Your task to perform on an android device: open app "DuckDuckGo Privacy Browser" Image 0: 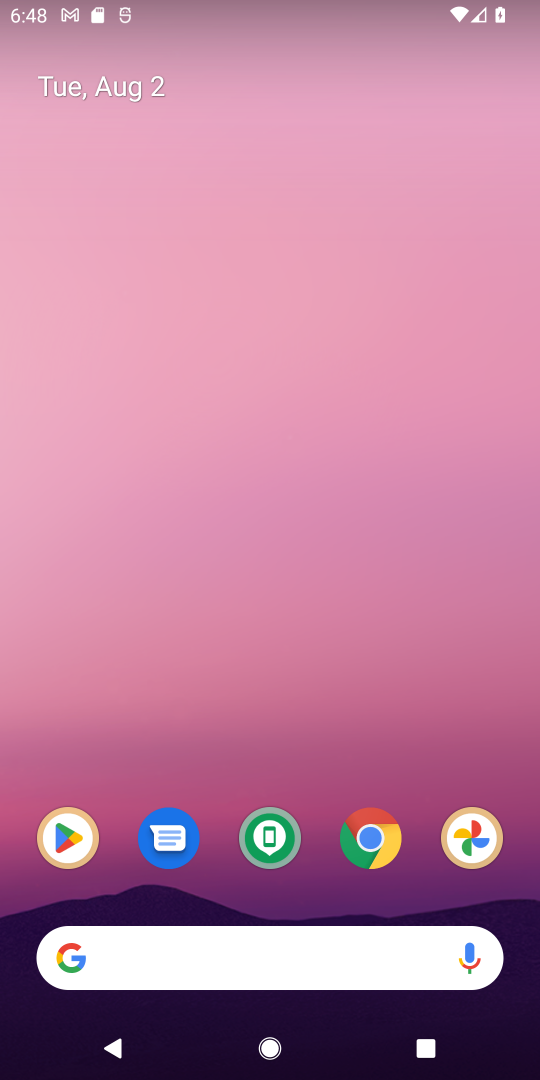
Step 0: click (64, 828)
Your task to perform on an android device: open app "DuckDuckGo Privacy Browser" Image 1: 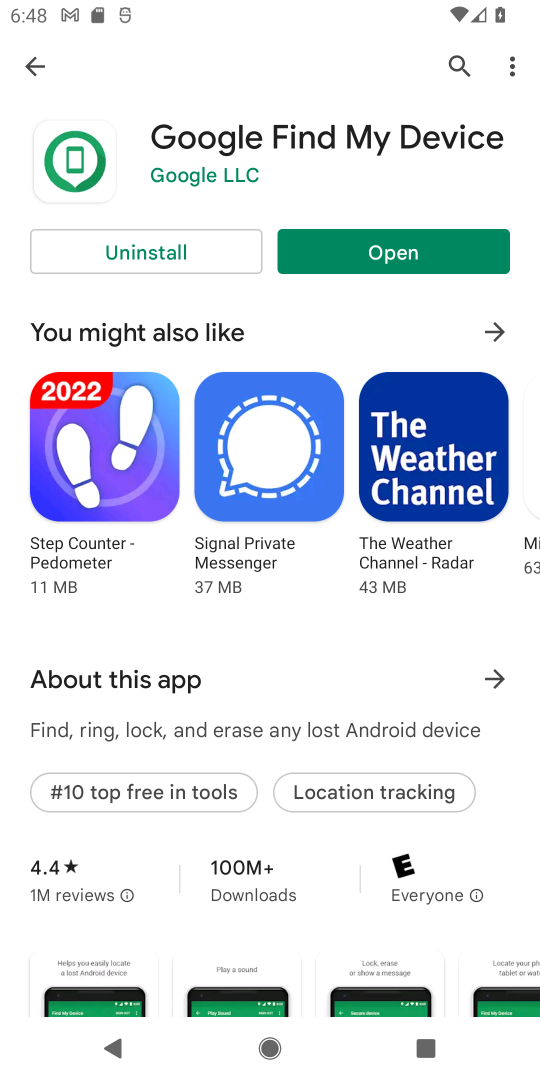
Step 1: click (463, 60)
Your task to perform on an android device: open app "DuckDuckGo Privacy Browser" Image 2: 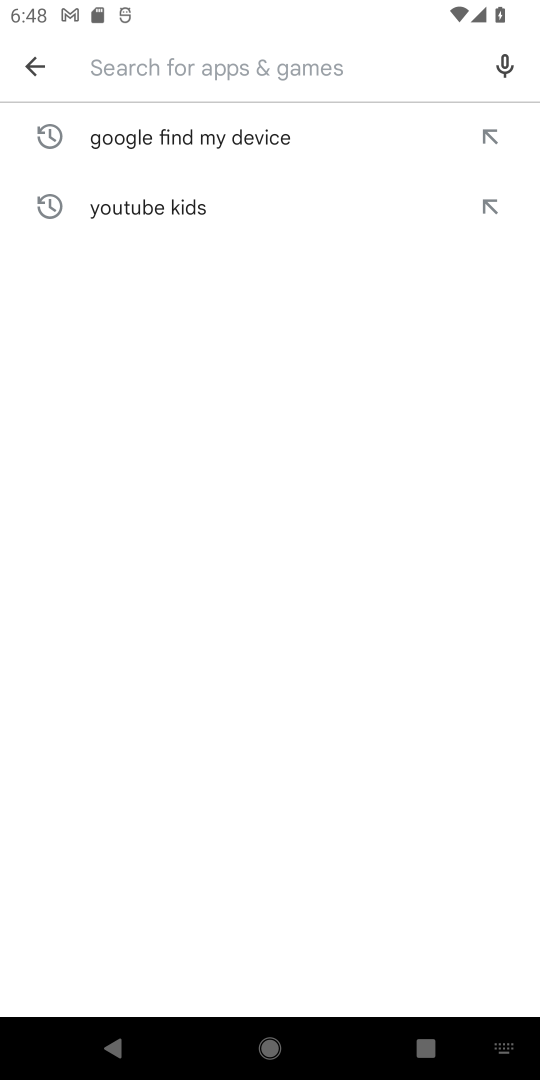
Step 2: type "DuckDuckGo privacy browser"
Your task to perform on an android device: open app "DuckDuckGo Privacy Browser" Image 3: 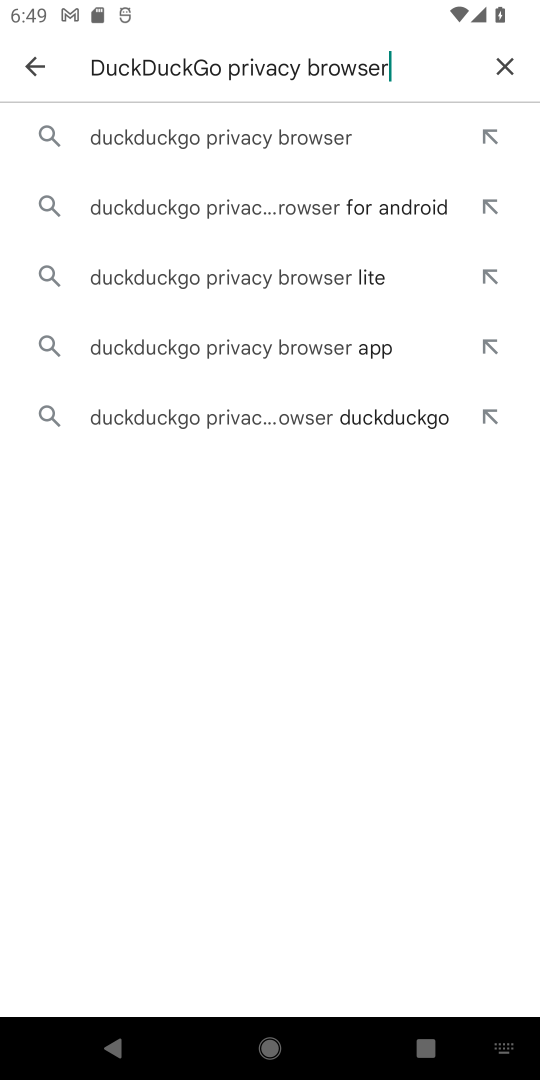
Step 3: click (188, 128)
Your task to perform on an android device: open app "DuckDuckGo Privacy Browser" Image 4: 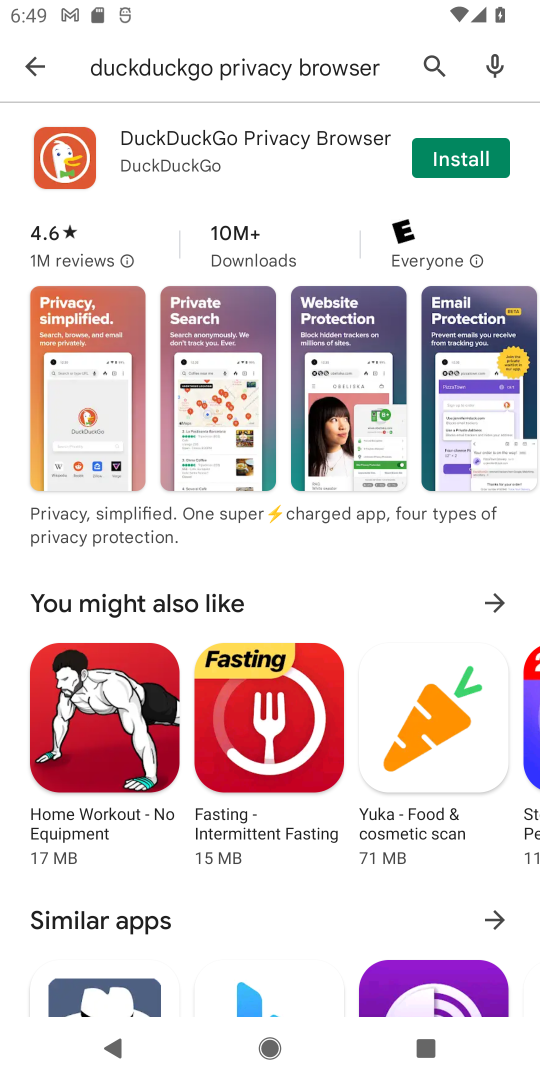
Step 4: click (254, 133)
Your task to perform on an android device: open app "DuckDuckGo Privacy Browser" Image 5: 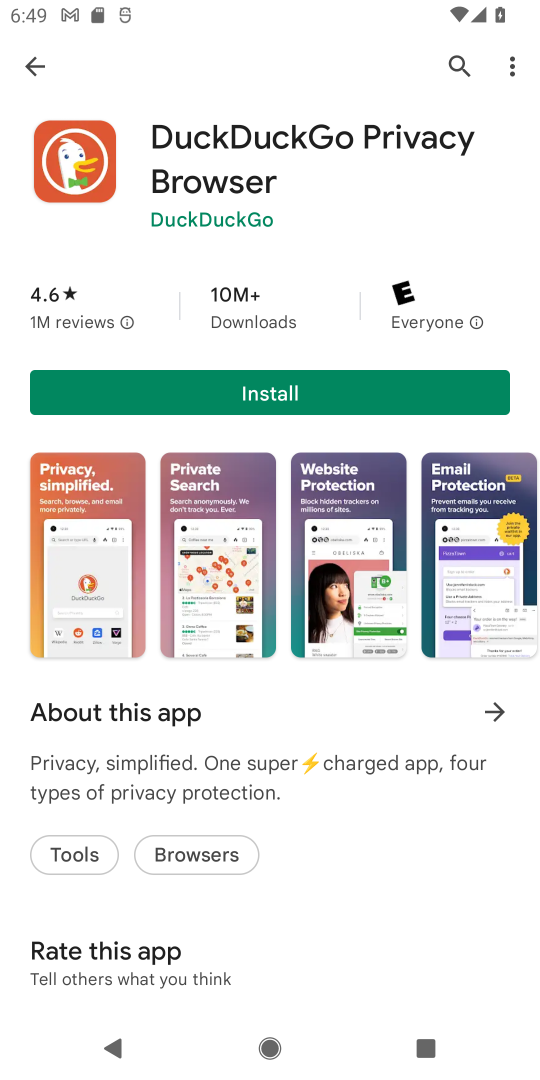
Step 5: task complete